Your task to perform on an android device: open chrome privacy settings Image 0: 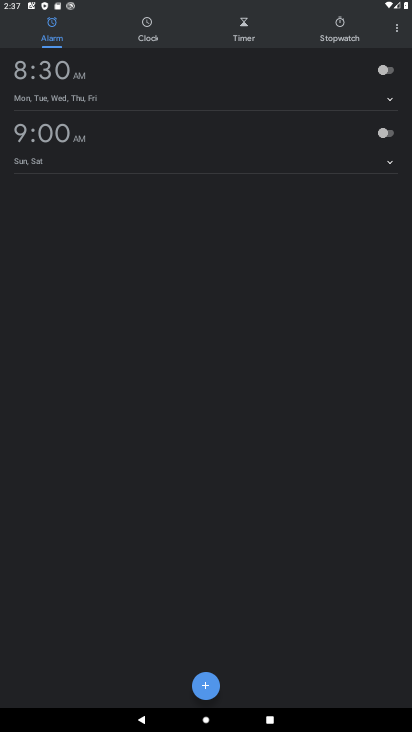
Step 0: press home button
Your task to perform on an android device: open chrome privacy settings Image 1: 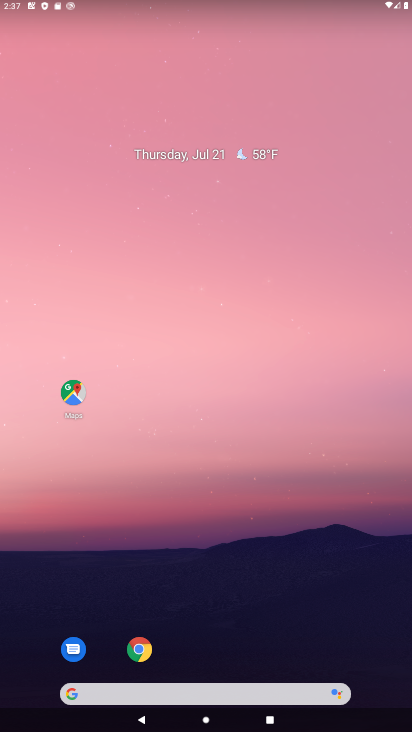
Step 1: click (338, 282)
Your task to perform on an android device: open chrome privacy settings Image 2: 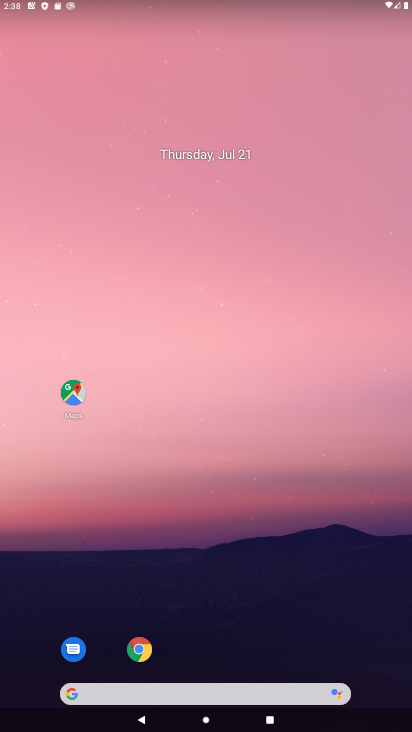
Step 2: drag from (274, 675) to (236, 197)
Your task to perform on an android device: open chrome privacy settings Image 3: 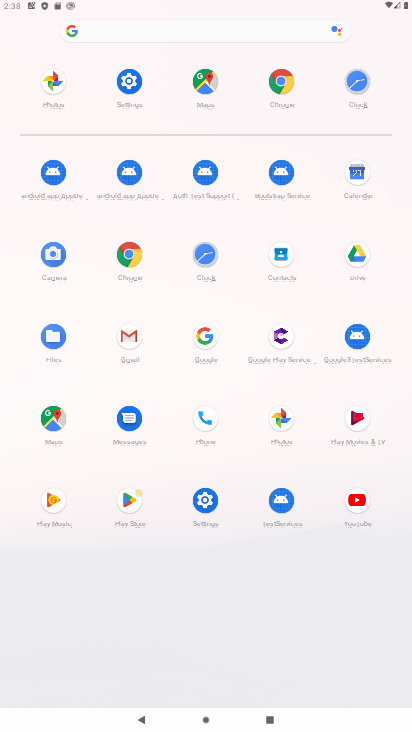
Step 3: click (280, 108)
Your task to perform on an android device: open chrome privacy settings Image 4: 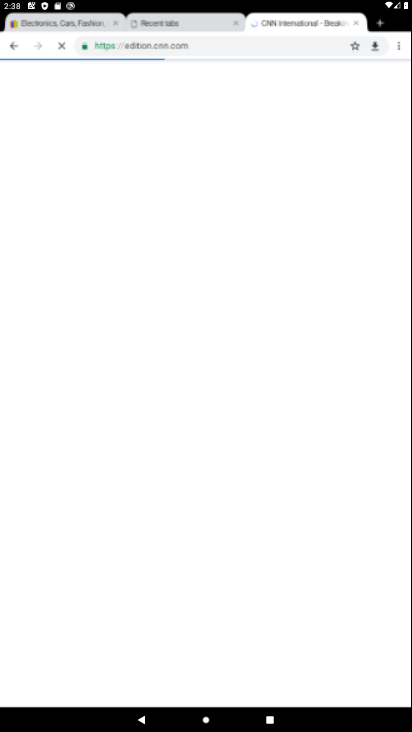
Step 4: click (404, 43)
Your task to perform on an android device: open chrome privacy settings Image 5: 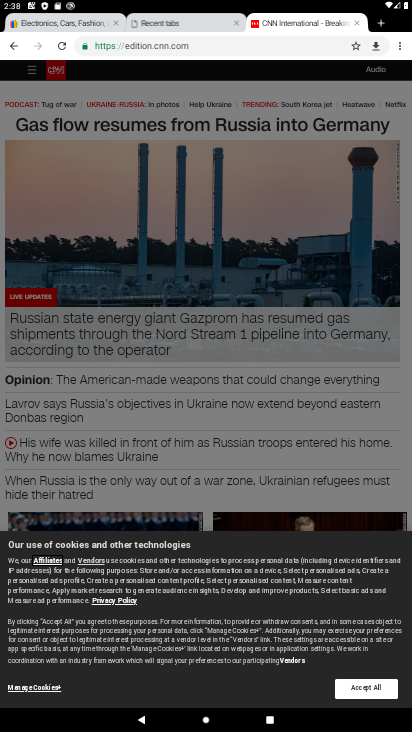
Step 5: task complete